Your task to perform on an android device: Open notification settings Image 0: 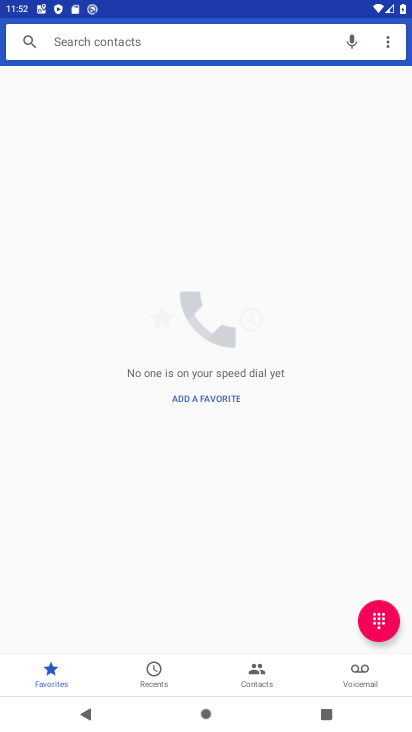
Step 0: press home button
Your task to perform on an android device: Open notification settings Image 1: 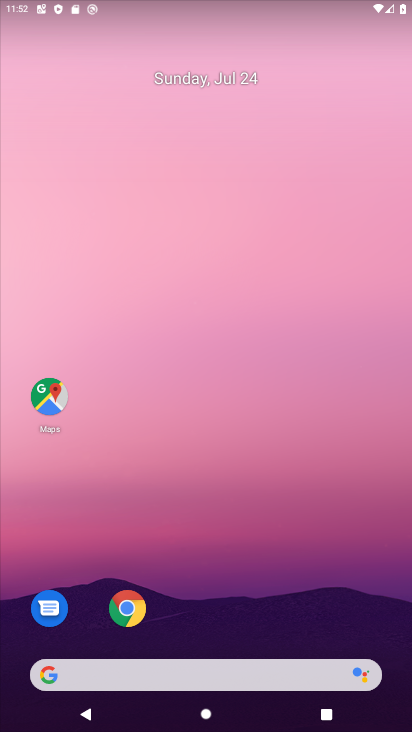
Step 1: drag from (189, 634) to (207, 28)
Your task to perform on an android device: Open notification settings Image 2: 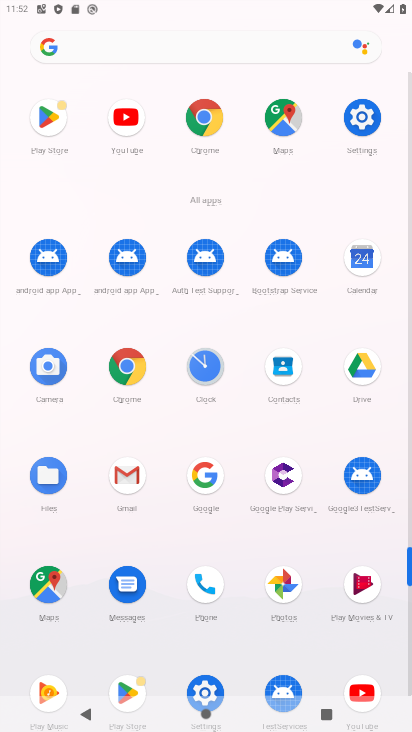
Step 2: click (355, 131)
Your task to perform on an android device: Open notification settings Image 3: 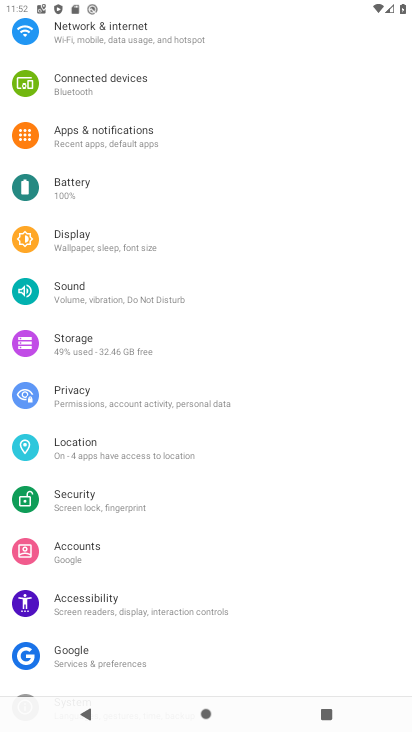
Step 3: click (77, 151)
Your task to perform on an android device: Open notification settings Image 4: 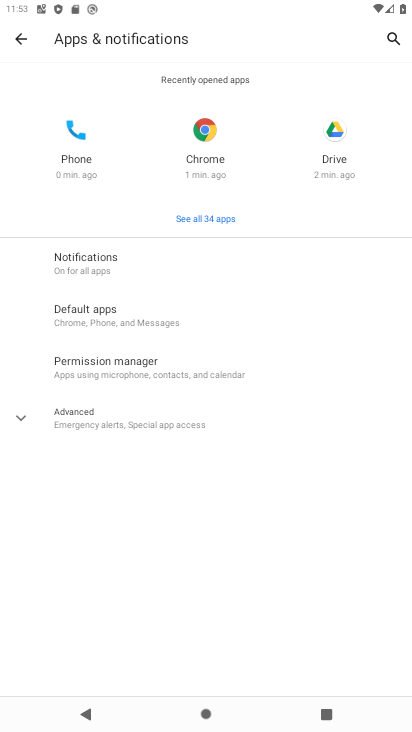
Step 4: click (77, 257)
Your task to perform on an android device: Open notification settings Image 5: 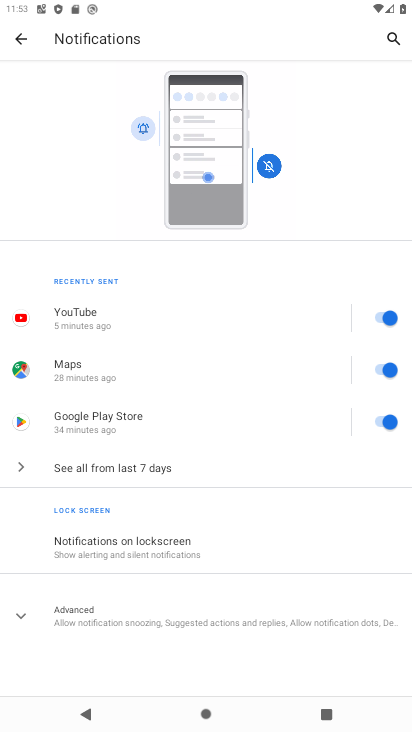
Step 5: task complete